Your task to perform on an android device: Open Google Maps Image 0: 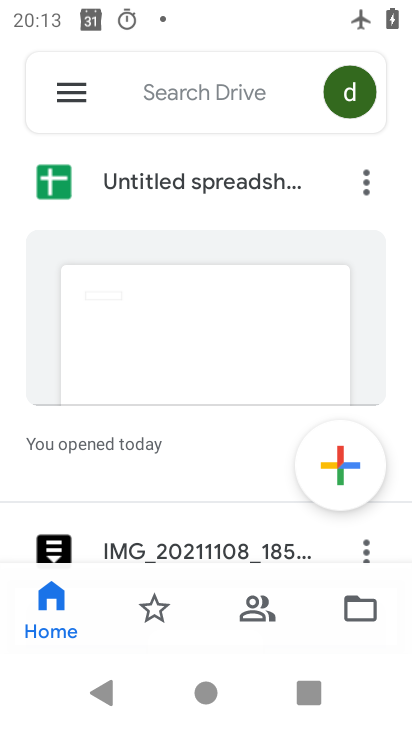
Step 0: press home button
Your task to perform on an android device: Open Google Maps Image 1: 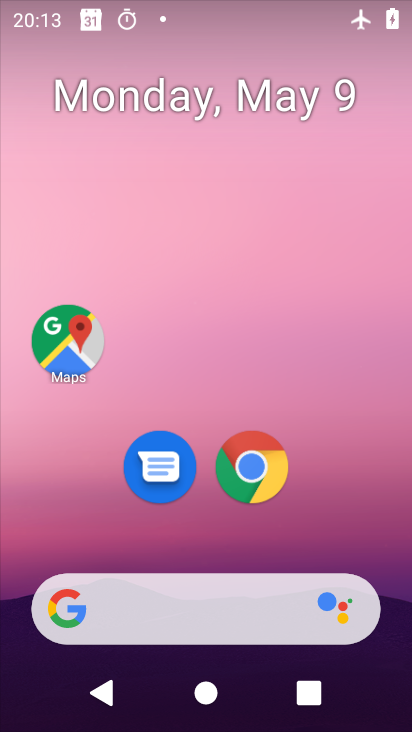
Step 1: click (70, 343)
Your task to perform on an android device: Open Google Maps Image 2: 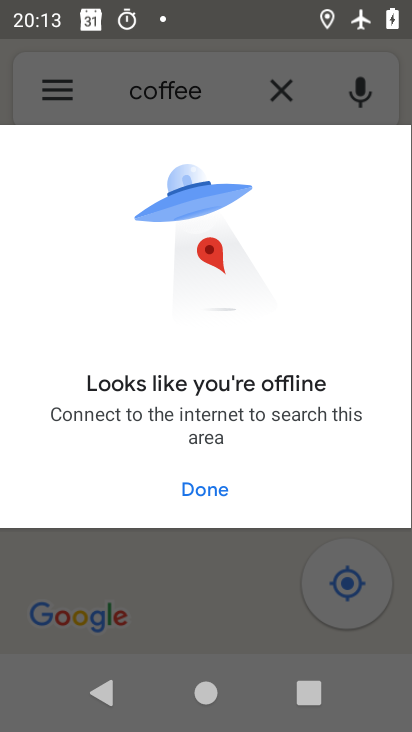
Step 2: task complete